Your task to perform on an android device: Open Chrome and go to the settings page Image 0: 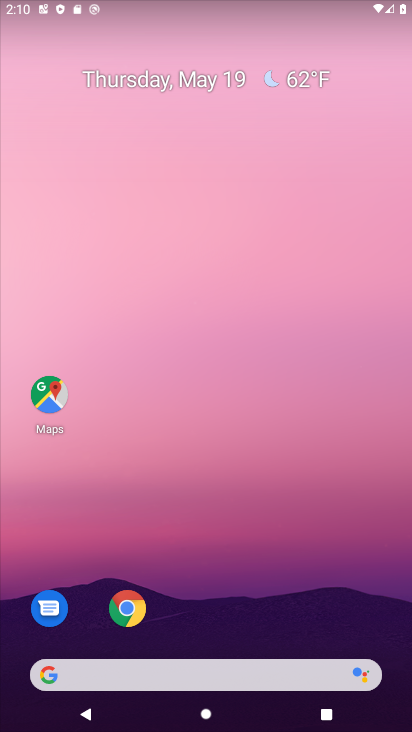
Step 0: click (137, 606)
Your task to perform on an android device: Open Chrome and go to the settings page Image 1: 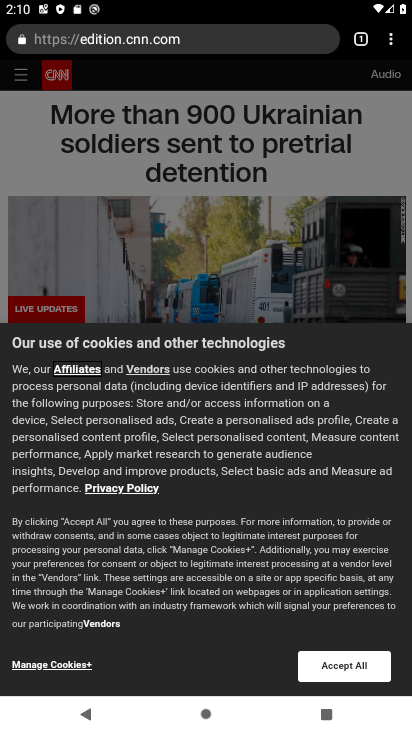
Step 1: click (396, 44)
Your task to perform on an android device: Open Chrome and go to the settings page Image 2: 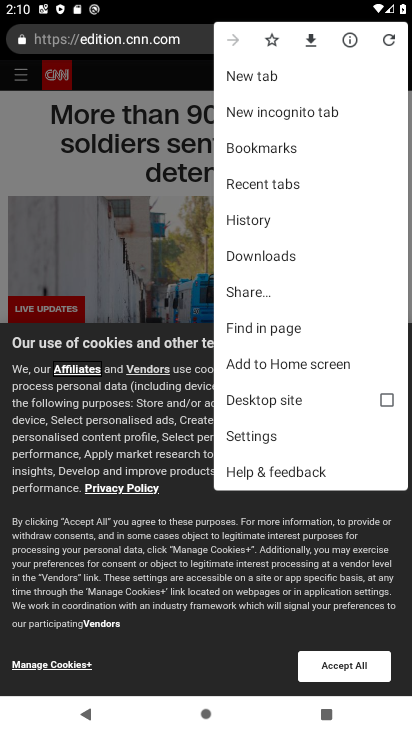
Step 2: click (312, 423)
Your task to perform on an android device: Open Chrome and go to the settings page Image 3: 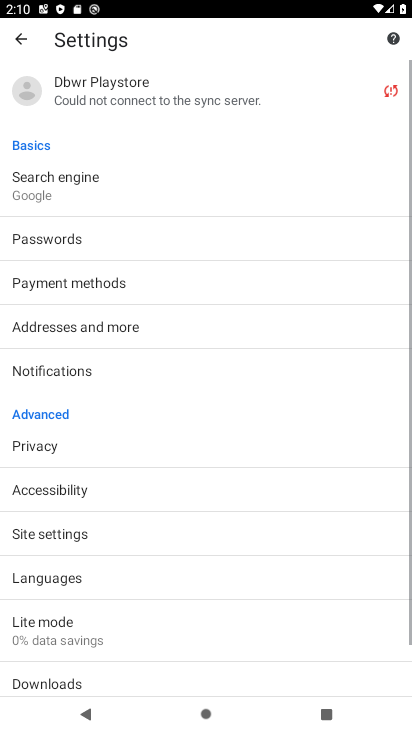
Step 3: task complete